Your task to perform on an android device: Add "dell xps" to the cart on ebay, then select checkout. Image 0: 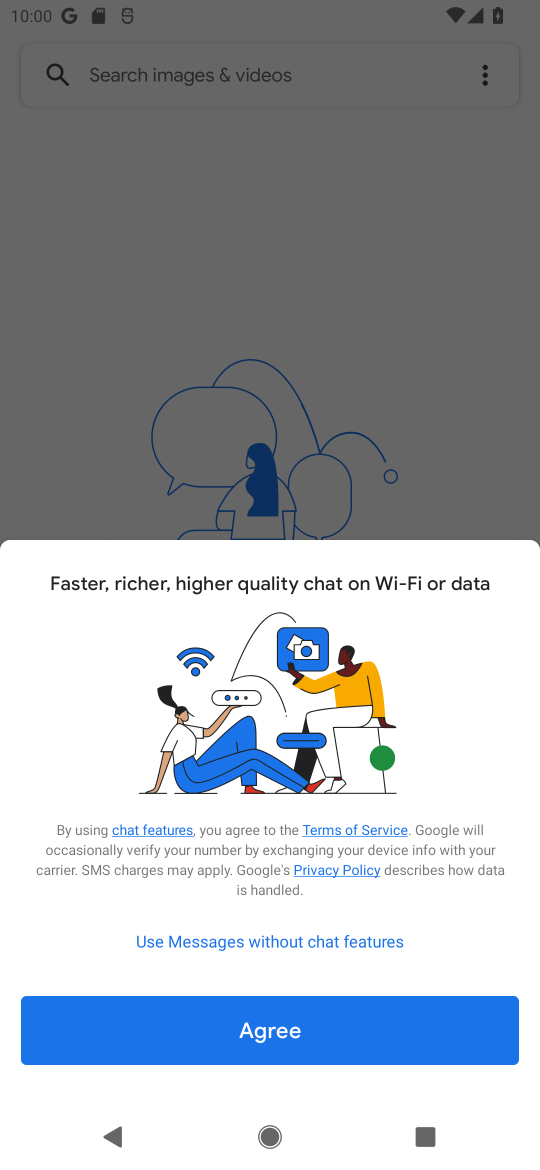
Step 0: press home button
Your task to perform on an android device: Add "dell xps" to the cart on ebay, then select checkout. Image 1: 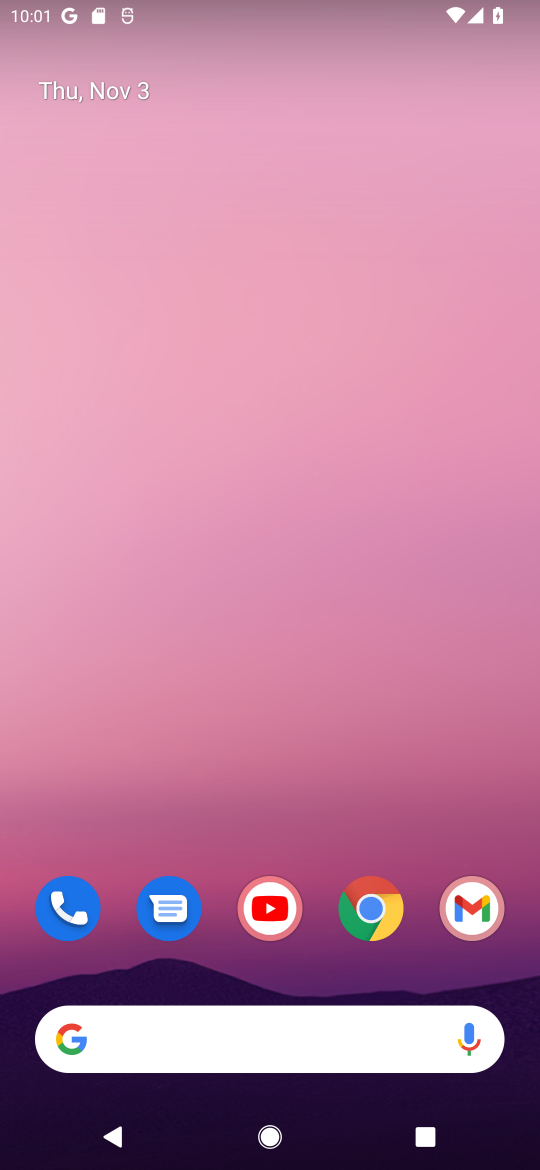
Step 1: click (378, 917)
Your task to perform on an android device: Add "dell xps" to the cart on ebay, then select checkout. Image 2: 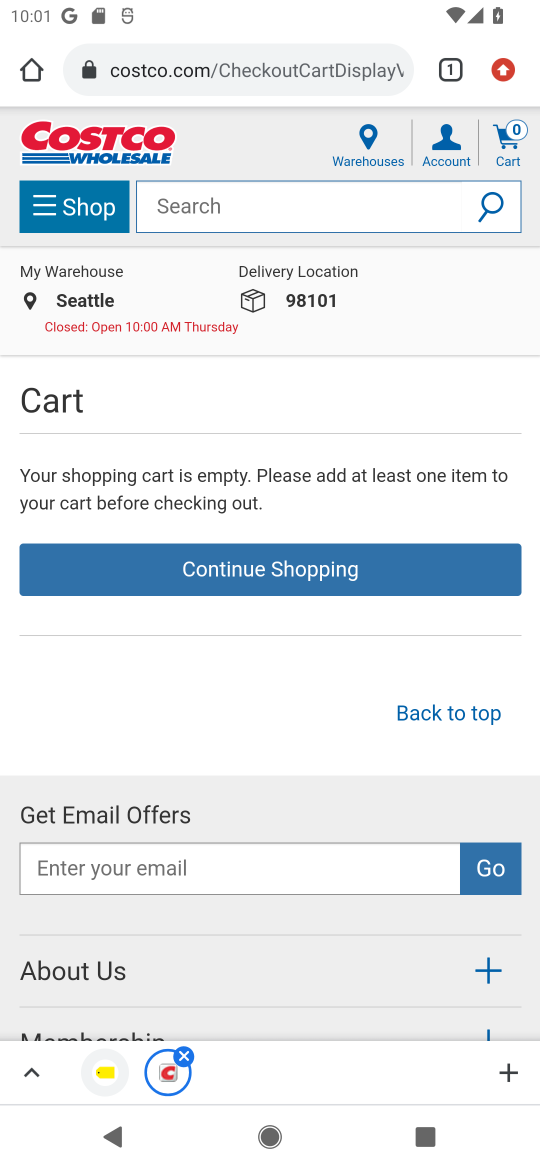
Step 2: click (343, 191)
Your task to perform on an android device: Add "dell xps" to the cart on ebay, then select checkout. Image 3: 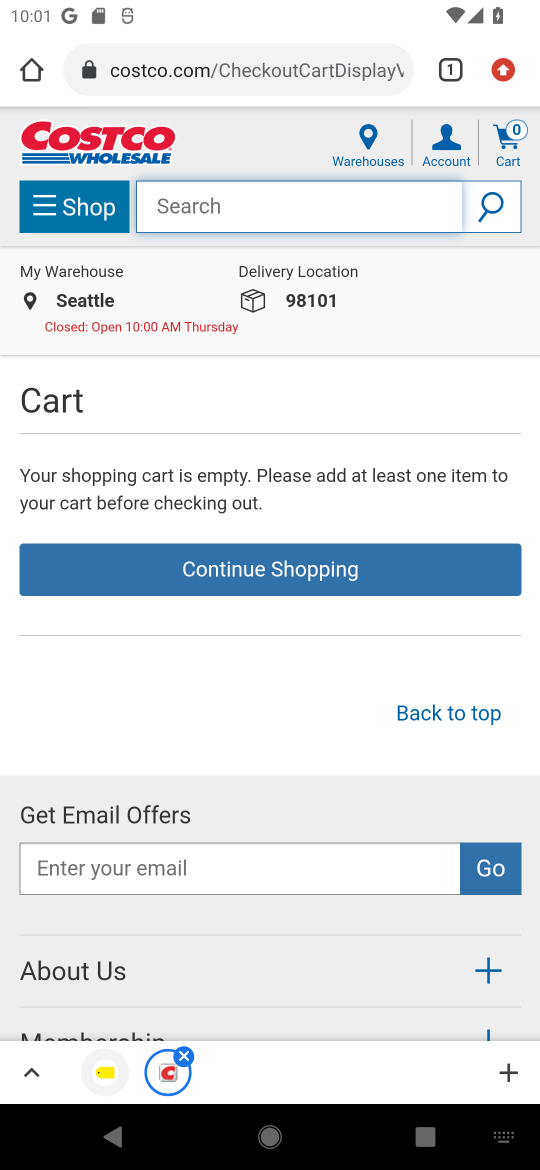
Step 3: click (34, 66)
Your task to perform on an android device: Add "dell xps" to the cart on ebay, then select checkout. Image 4: 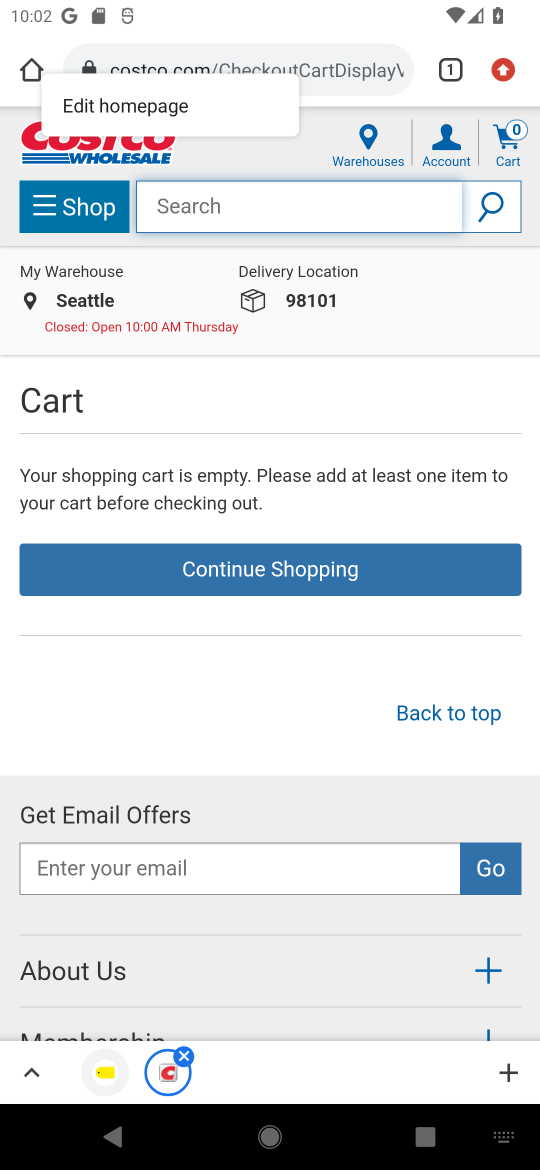
Step 4: click (33, 66)
Your task to perform on an android device: Add "dell xps" to the cart on ebay, then select checkout. Image 5: 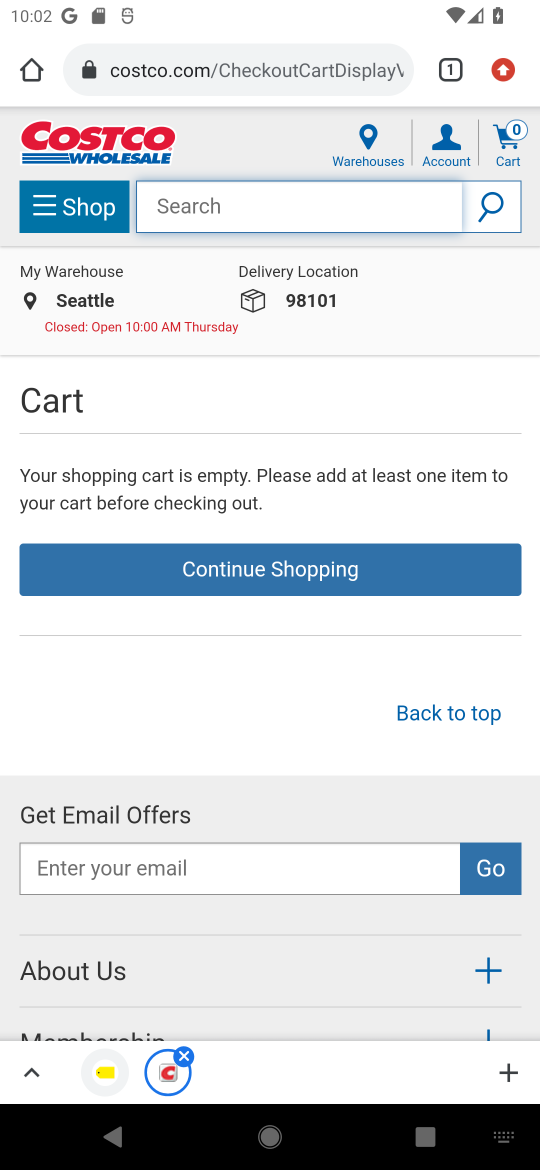
Step 5: click (33, 66)
Your task to perform on an android device: Add "dell xps" to the cart on ebay, then select checkout. Image 6: 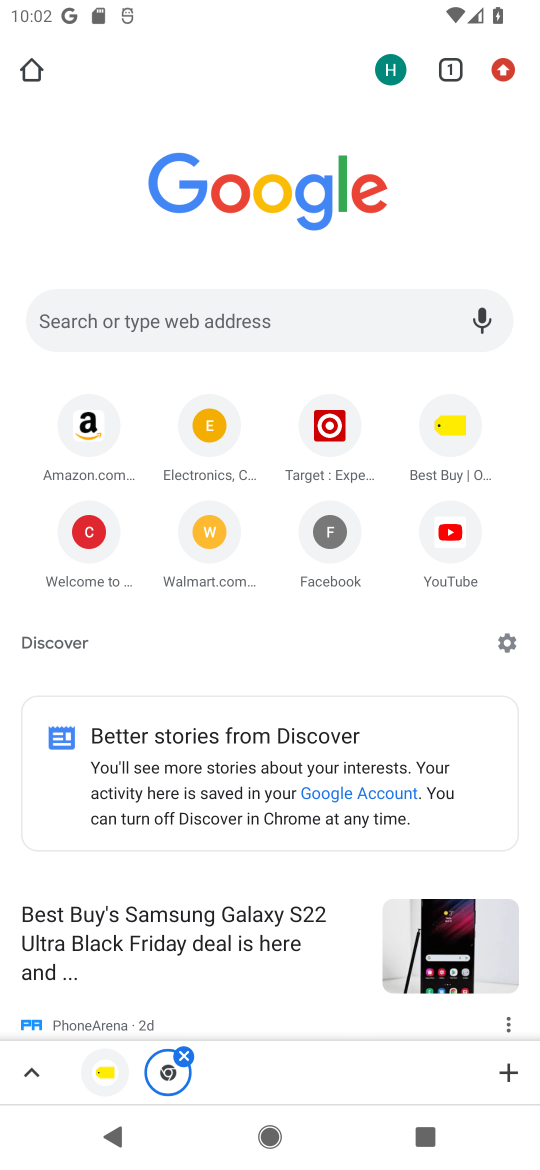
Step 6: click (277, 309)
Your task to perform on an android device: Add "dell xps" to the cart on ebay, then select checkout. Image 7: 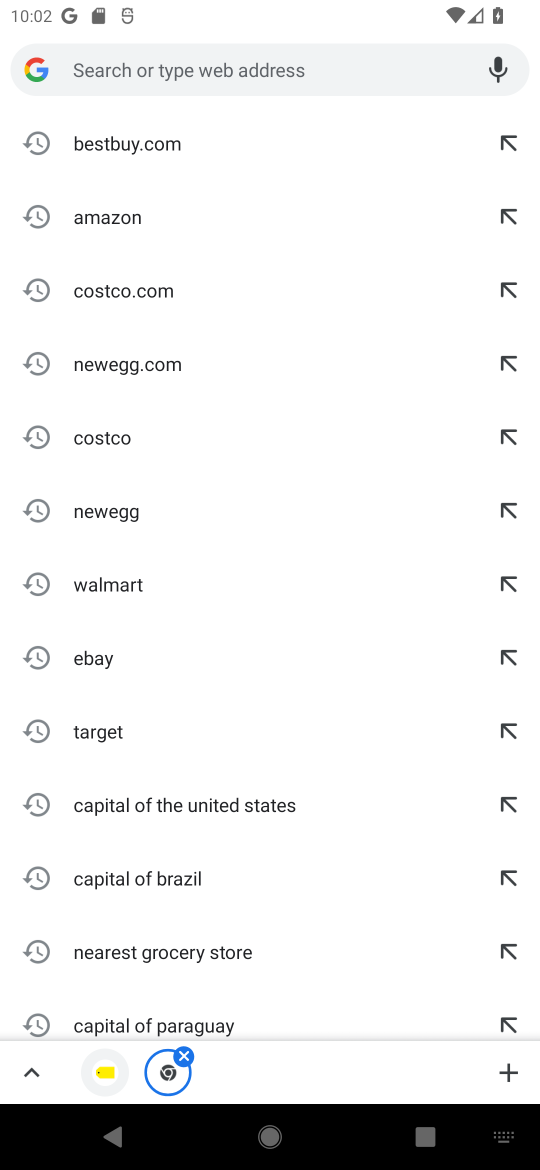
Step 7: click (95, 662)
Your task to perform on an android device: Add "dell xps" to the cart on ebay, then select checkout. Image 8: 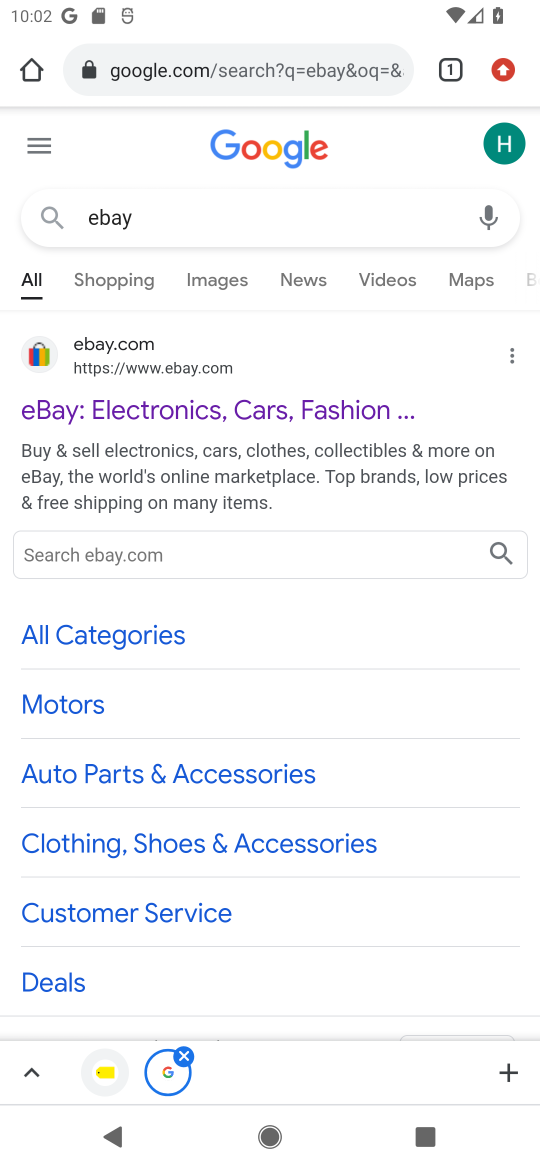
Step 8: click (131, 363)
Your task to perform on an android device: Add "dell xps" to the cart on ebay, then select checkout. Image 9: 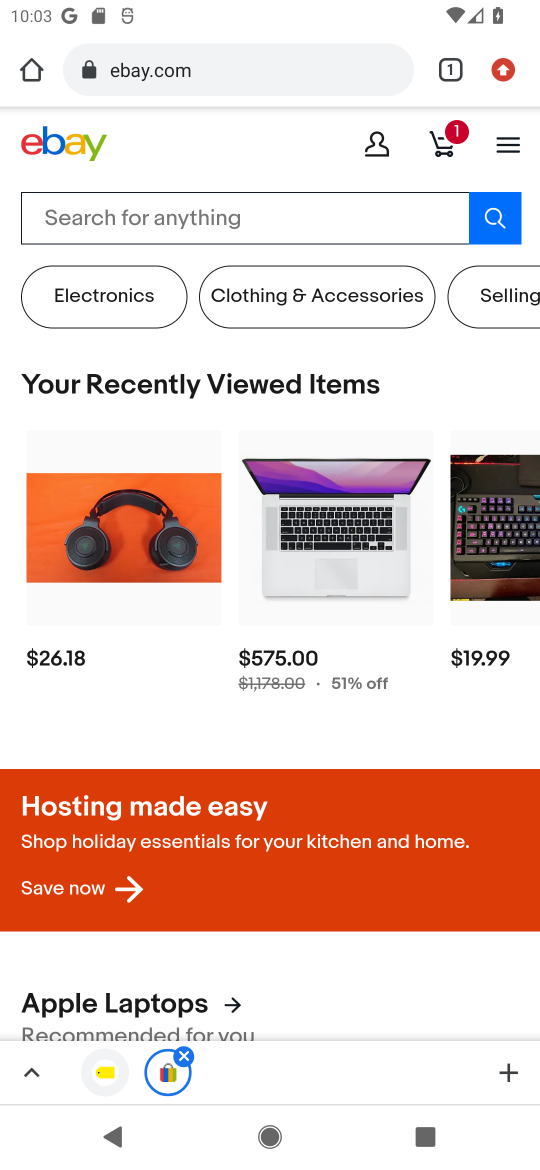
Step 9: click (365, 217)
Your task to perform on an android device: Add "dell xps" to the cart on ebay, then select checkout. Image 10: 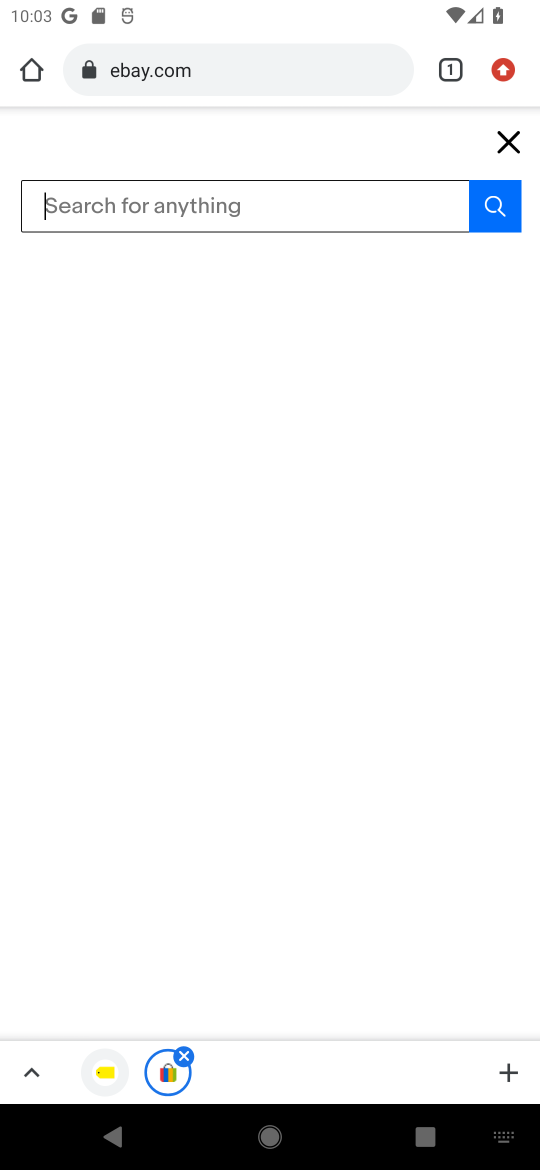
Step 10: type "dell xps"
Your task to perform on an android device: Add "dell xps" to the cart on ebay, then select checkout. Image 11: 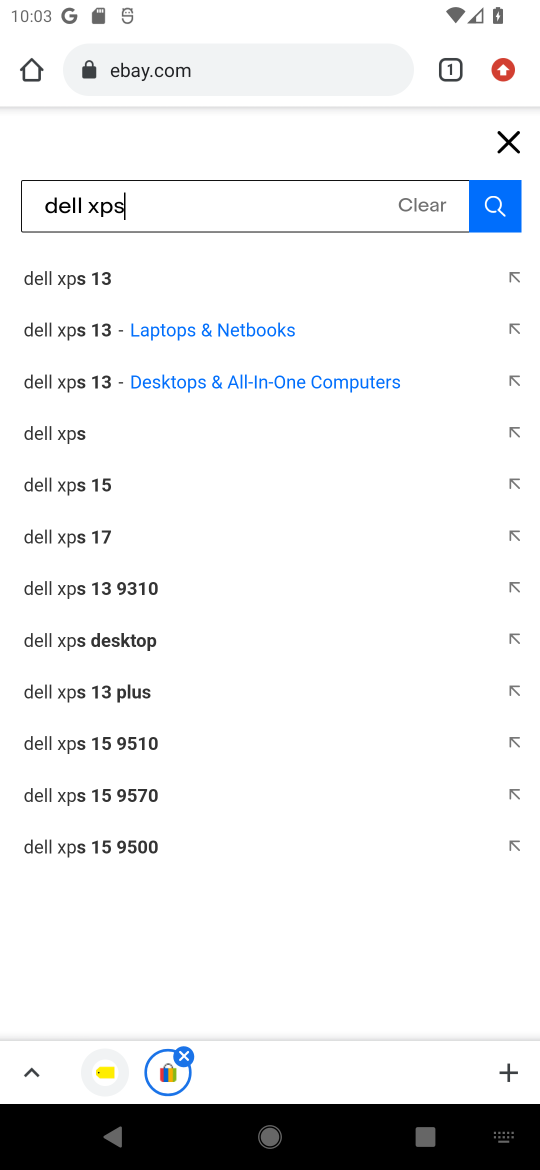
Step 11: click (64, 430)
Your task to perform on an android device: Add "dell xps" to the cart on ebay, then select checkout. Image 12: 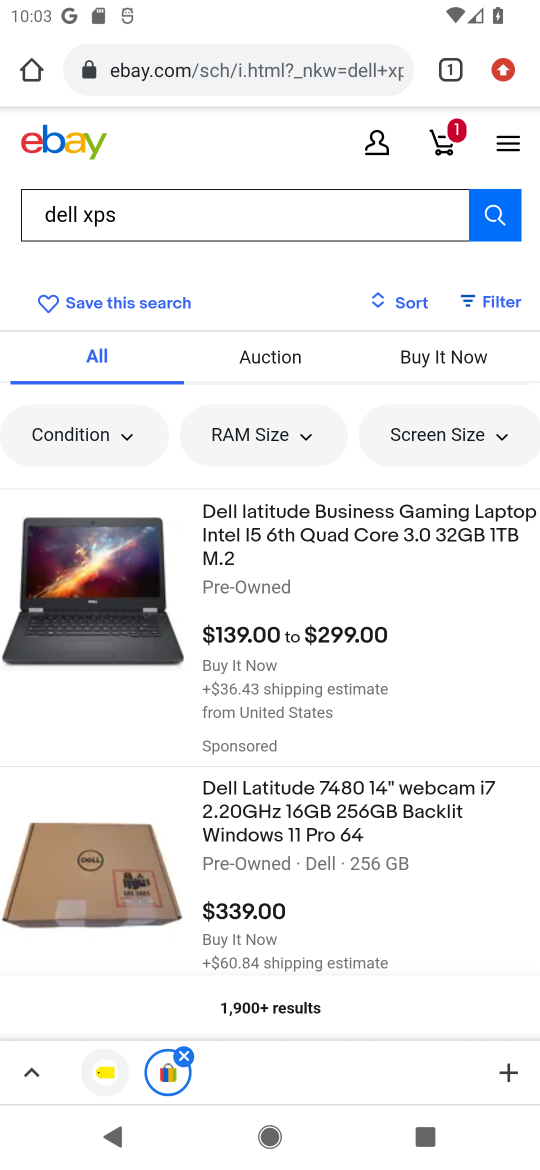
Step 12: drag from (354, 811) to (330, 421)
Your task to perform on an android device: Add "dell xps" to the cart on ebay, then select checkout. Image 13: 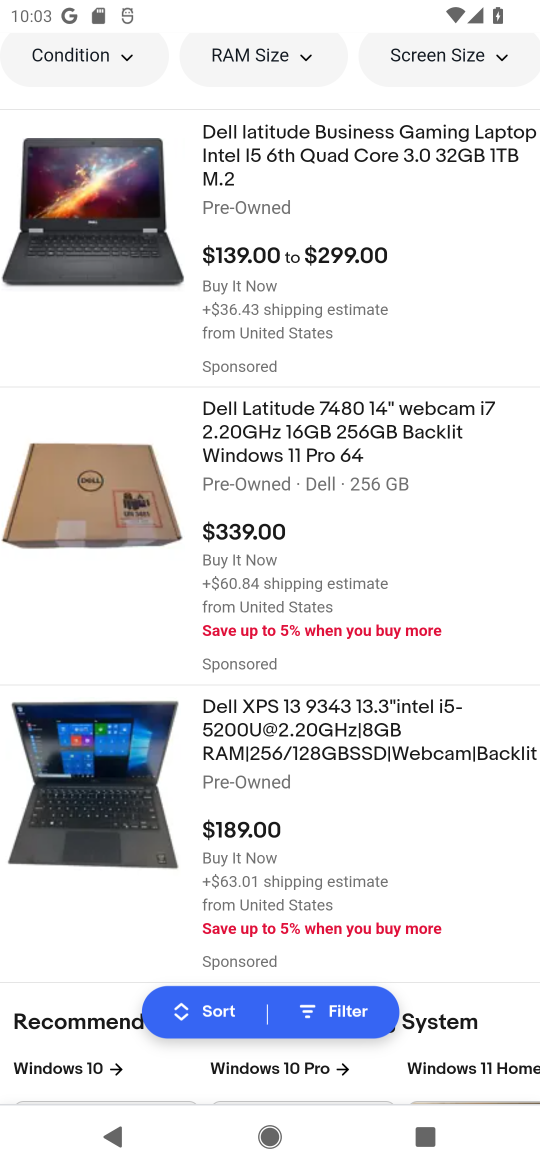
Step 13: click (102, 756)
Your task to perform on an android device: Add "dell xps" to the cart on ebay, then select checkout. Image 14: 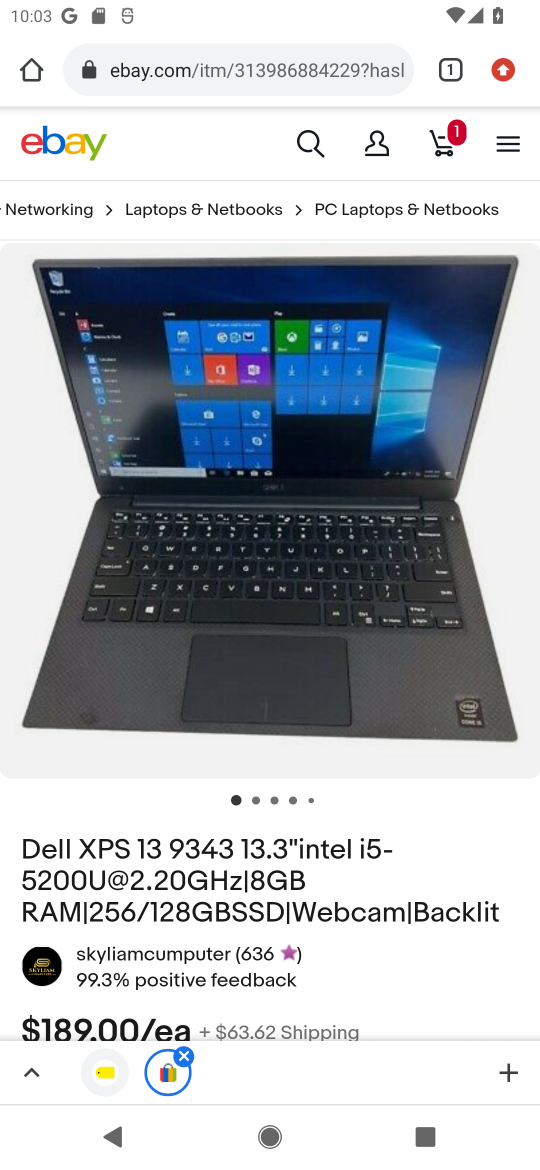
Step 14: drag from (280, 750) to (270, 193)
Your task to perform on an android device: Add "dell xps" to the cart on ebay, then select checkout. Image 15: 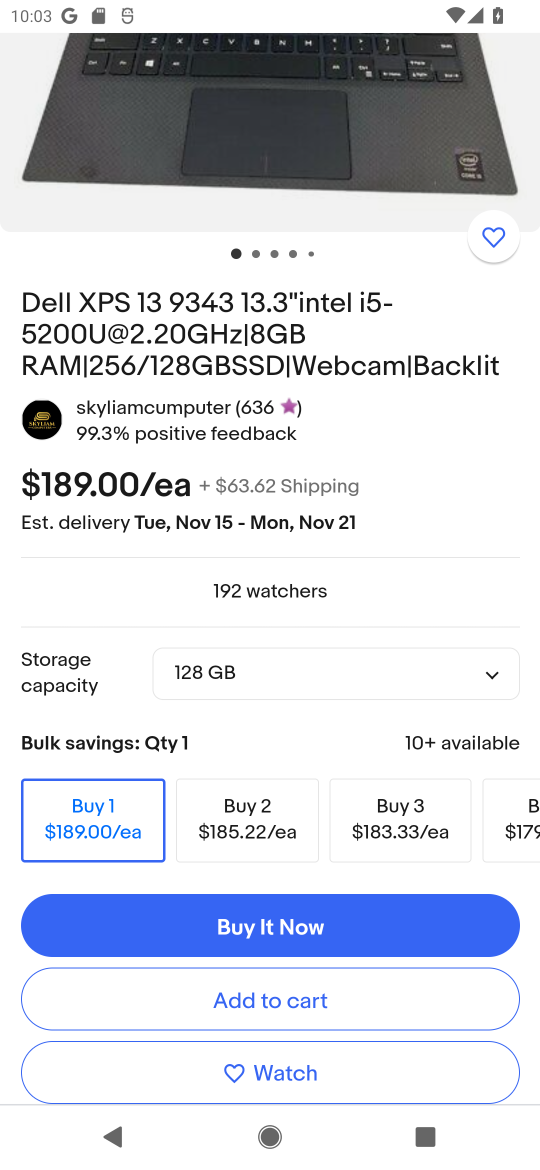
Step 15: click (341, 999)
Your task to perform on an android device: Add "dell xps" to the cart on ebay, then select checkout. Image 16: 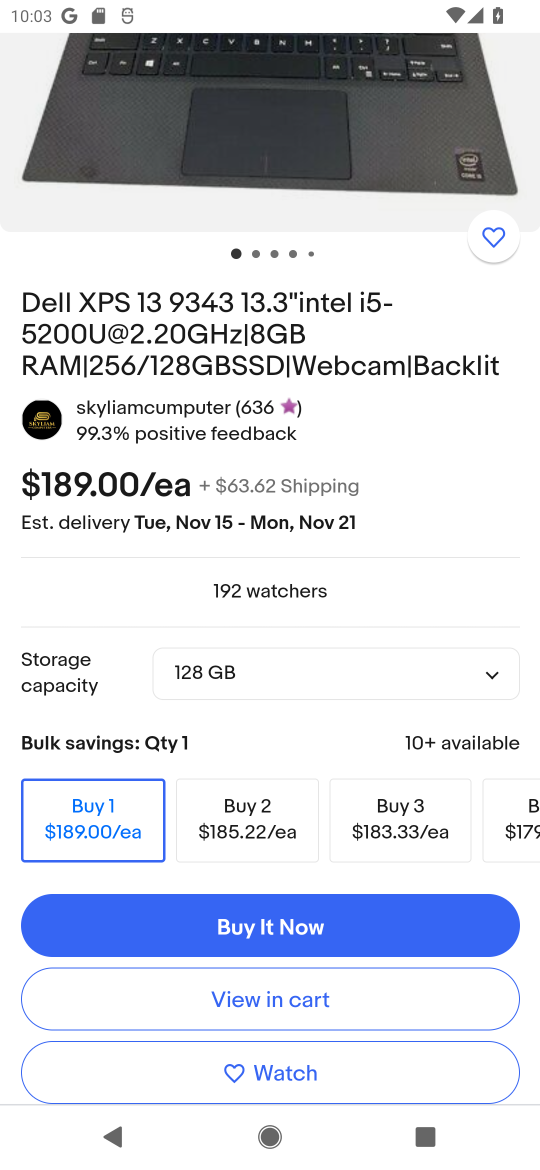
Step 16: click (349, 996)
Your task to perform on an android device: Add "dell xps" to the cart on ebay, then select checkout. Image 17: 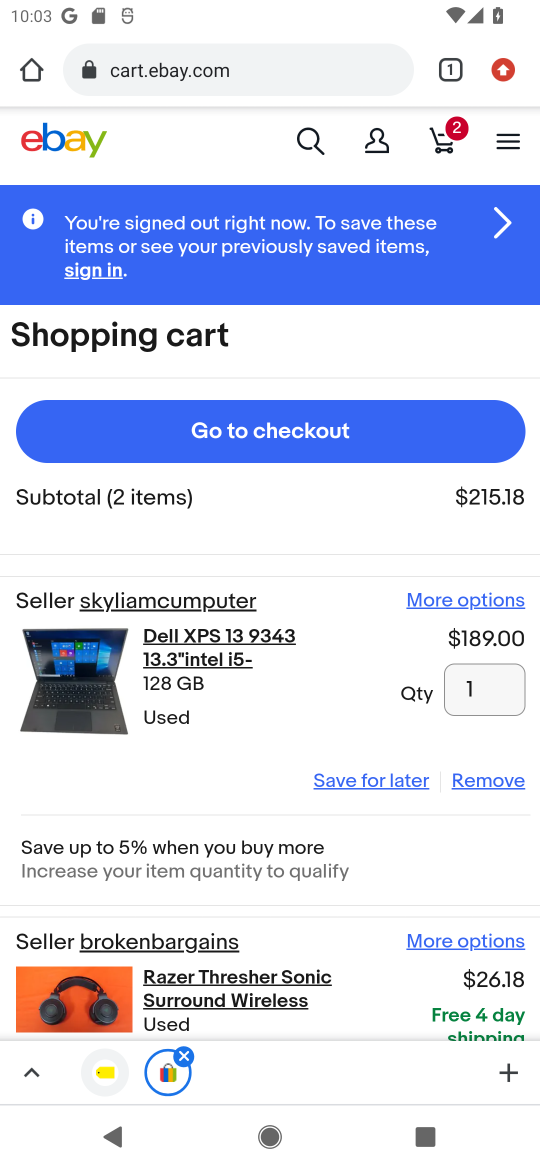
Step 17: click (258, 423)
Your task to perform on an android device: Add "dell xps" to the cart on ebay, then select checkout. Image 18: 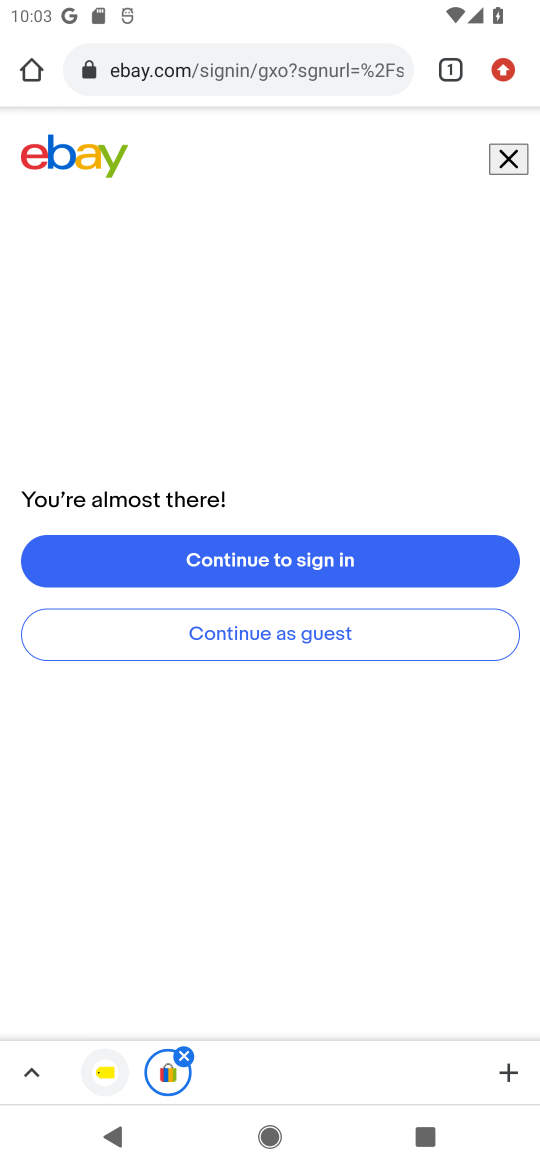
Step 18: task complete